Your task to perform on an android device: Do I have any events tomorrow? Image 0: 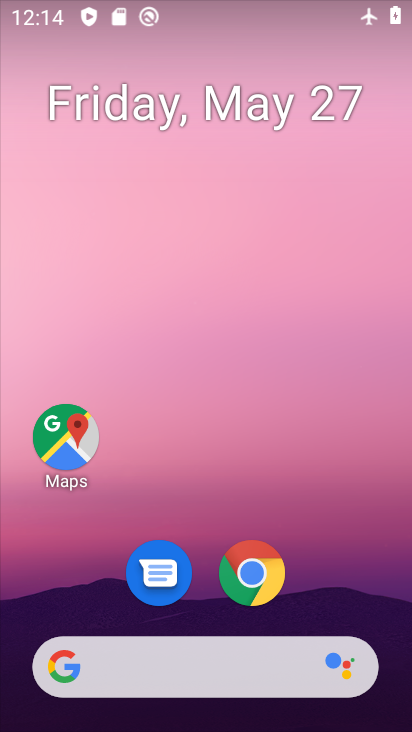
Step 0: drag from (337, 551) to (357, 111)
Your task to perform on an android device: Do I have any events tomorrow? Image 1: 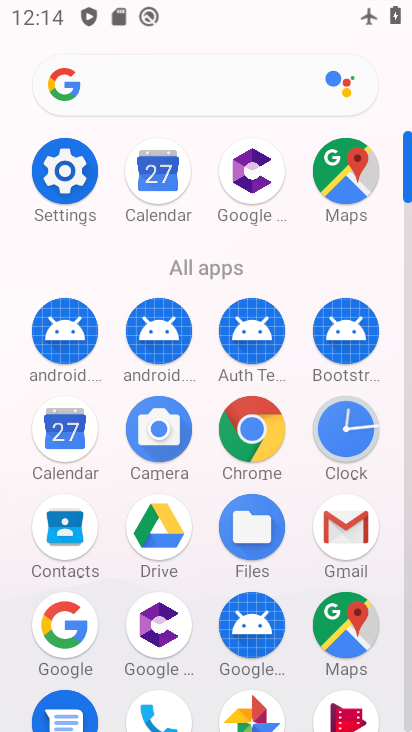
Step 1: click (40, 430)
Your task to perform on an android device: Do I have any events tomorrow? Image 2: 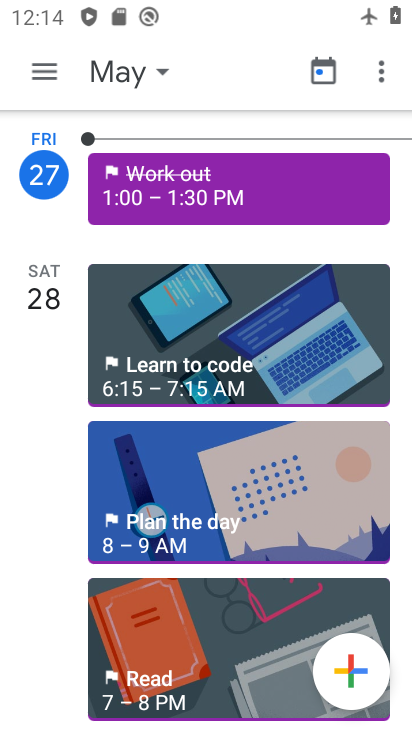
Step 2: task complete